Your task to perform on an android device: change the clock display to analog Image 0: 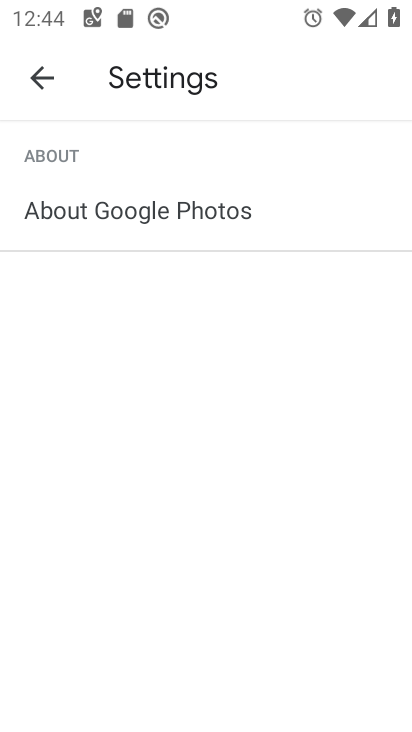
Step 0: press home button
Your task to perform on an android device: change the clock display to analog Image 1: 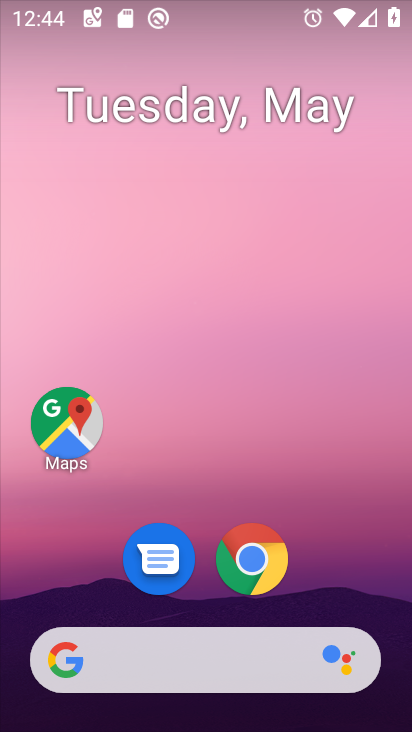
Step 1: drag from (382, 597) to (288, 132)
Your task to perform on an android device: change the clock display to analog Image 2: 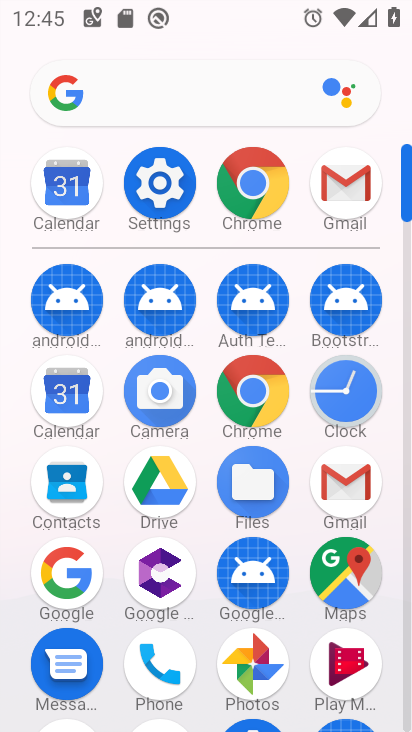
Step 2: click (363, 386)
Your task to perform on an android device: change the clock display to analog Image 3: 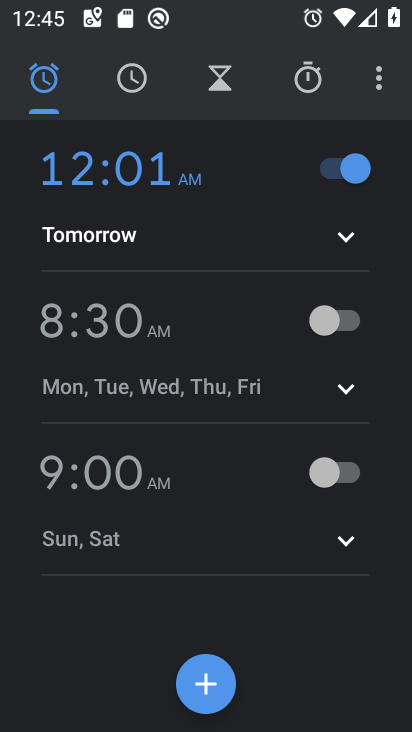
Step 3: click (379, 62)
Your task to perform on an android device: change the clock display to analog Image 4: 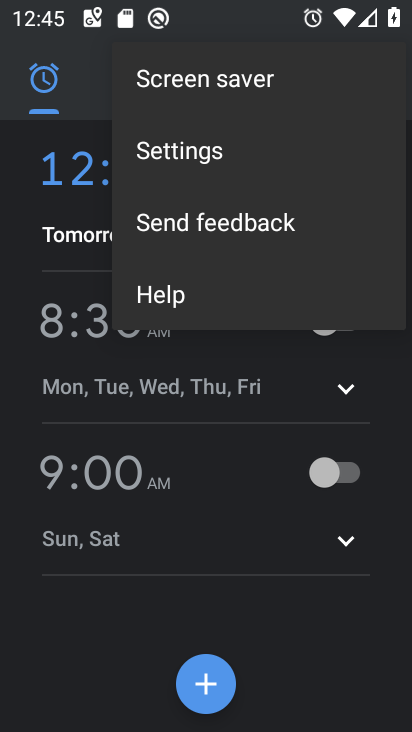
Step 4: click (298, 138)
Your task to perform on an android device: change the clock display to analog Image 5: 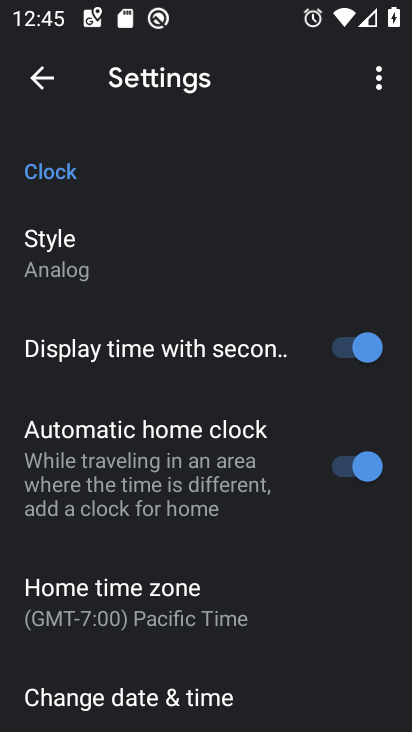
Step 5: click (231, 261)
Your task to perform on an android device: change the clock display to analog Image 6: 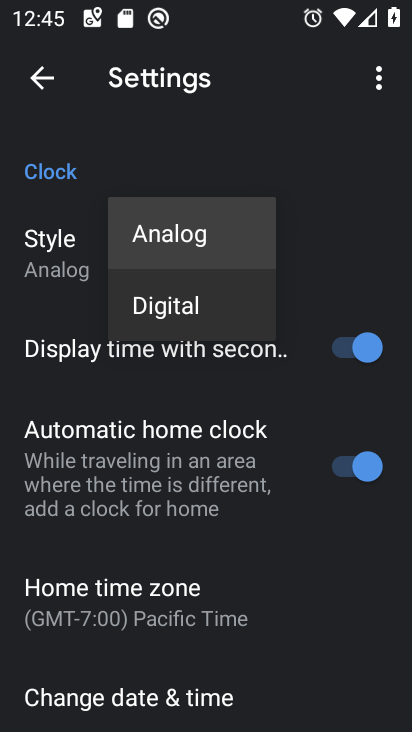
Step 6: task complete